Your task to perform on an android device: open device folders in google photos Image 0: 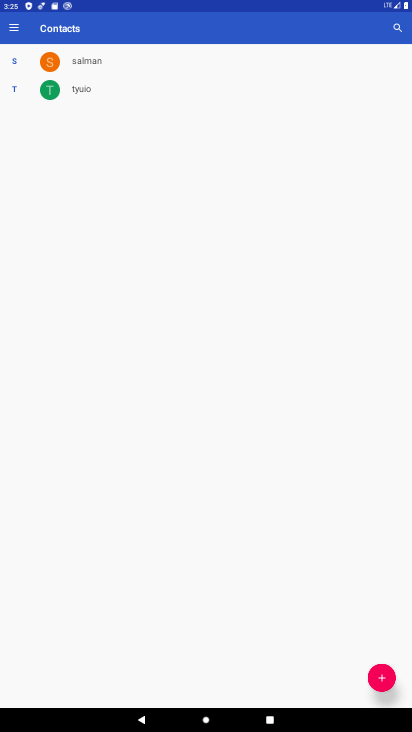
Step 0: press home button
Your task to perform on an android device: open device folders in google photos Image 1: 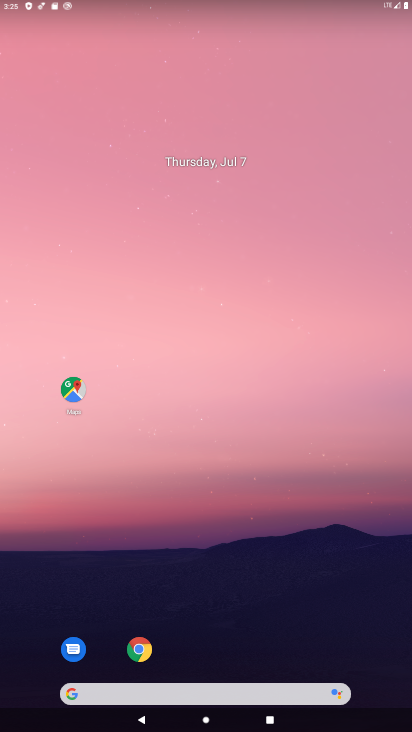
Step 1: click (296, 223)
Your task to perform on an android device: open device folders in google photos Image 2: 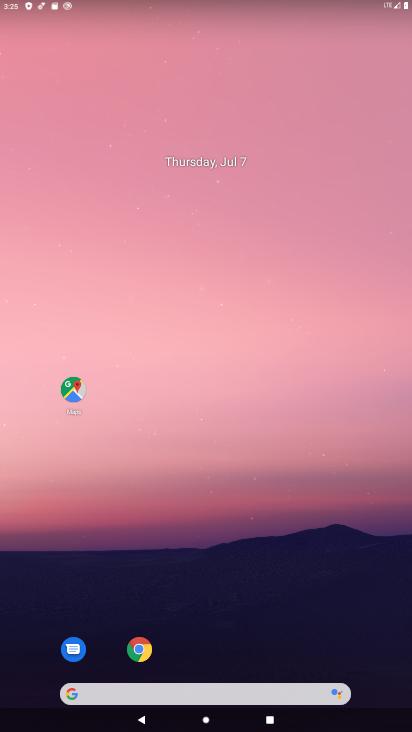
Step 2: drag from (259, 633) to (338, 159)
Your task to perform on an android device: open device folders in google photos Image 3: 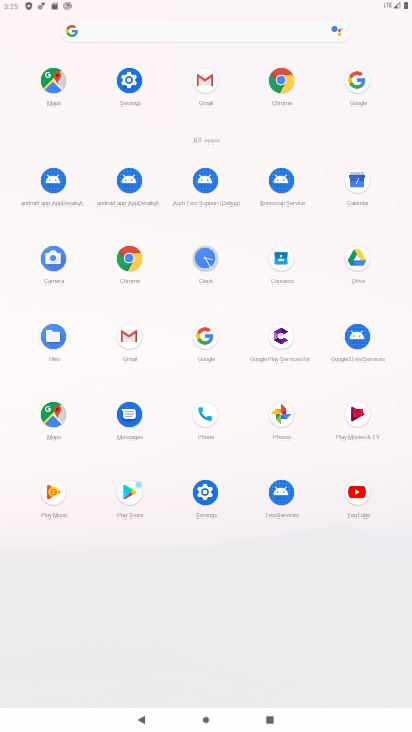
Step 3: click (280, 416)
Your task to perform on an android device: open device folders in google photos Image 4: 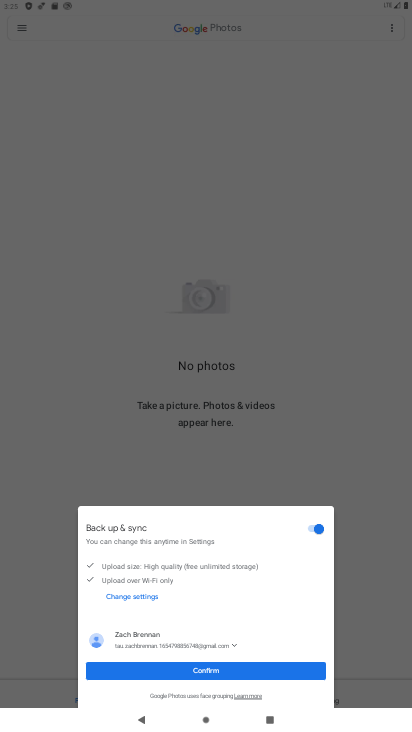
Step 4: click (254, 674)
Your task to perform on an android device: open device folders in google photos Image 5: 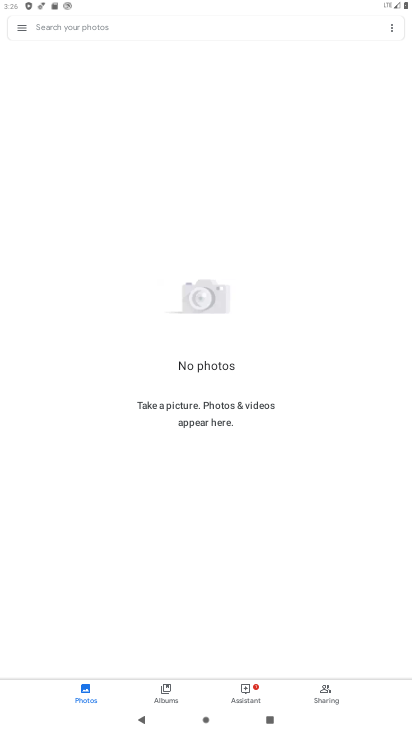
Step 5: click (23, 28)
Your task to perform on an android device: open device folders in google photos Image 6: 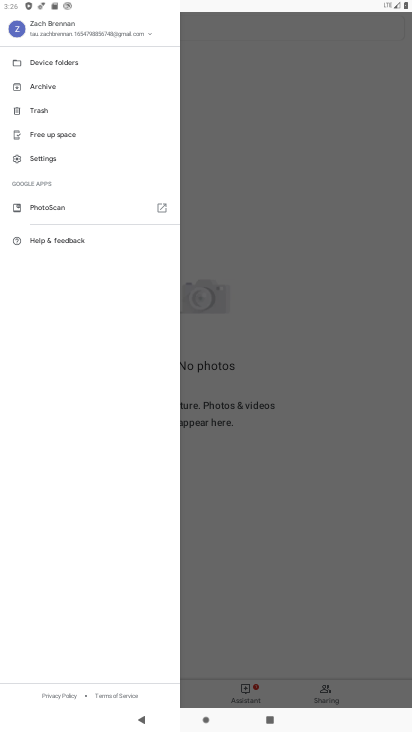
Step 6: click (65, 64)
Your task to perform on an android device: open device folders in google photos Image 7: 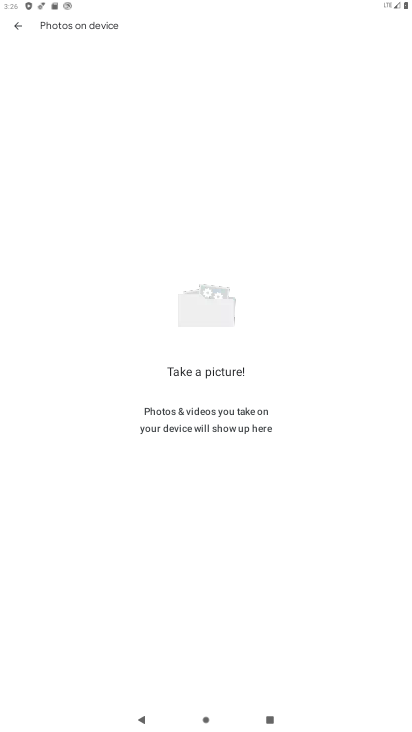
Step 7: task complete